Your task to perform on an android device: find which apps use the phone's location Image 0: 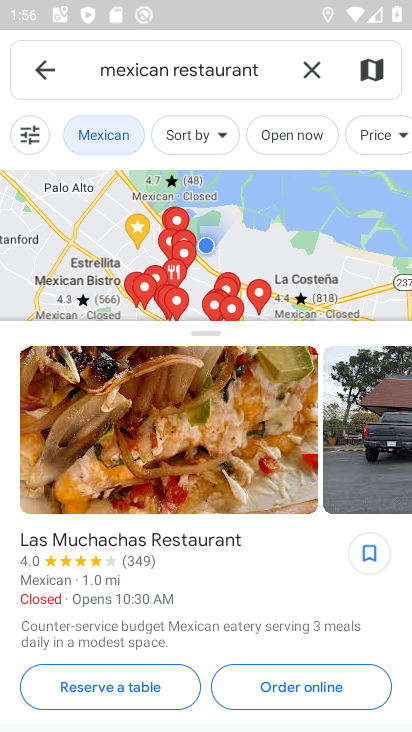
Step 0: press home button
Your task to perform on an android device: find which apps use the phone's location Image 1: 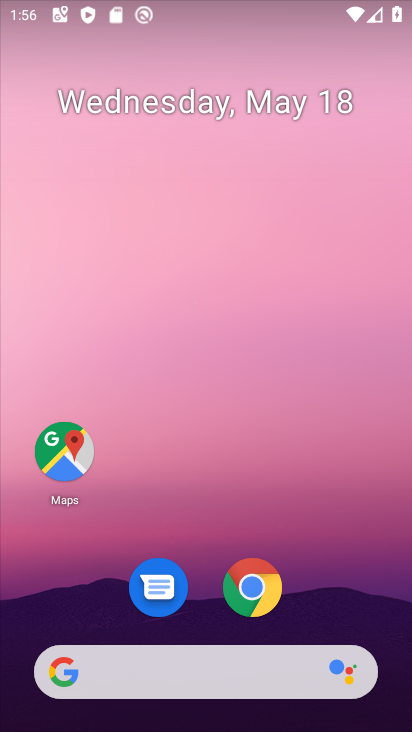
Step 1: drag from (349, 631) to (326, 0)
Your task to perform on an android device: find which apps use the phone's location Image 2: 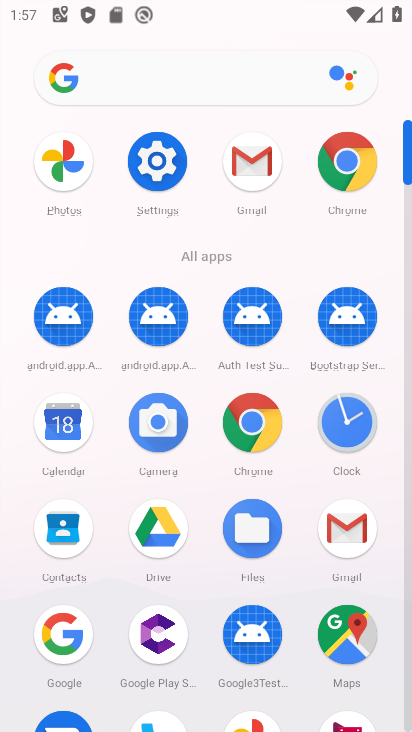
Step 2: click (158, 155)
Your task to perform on an android device: find which apps use the phone's location Image 3: 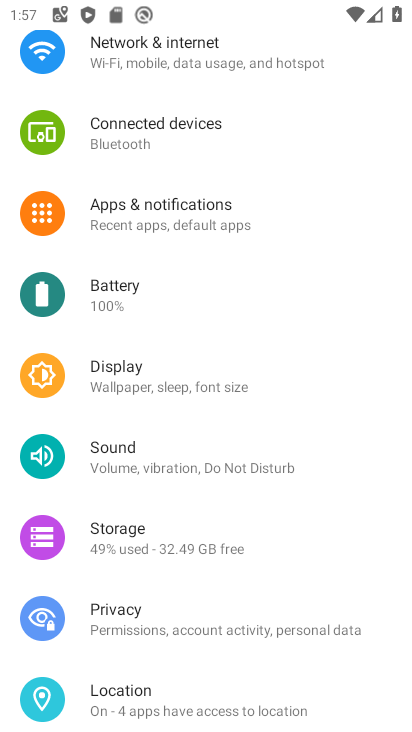
Step 3: click (144, 694)
Your task to perform on an android device: find which apps use the phone's location Image 4: 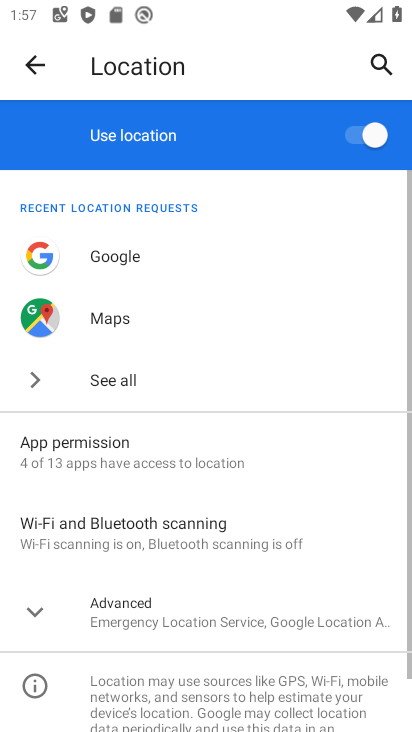
Step 4: click (69, 445)
Your task to perform on an android device: find which apps use the phone's location Image 5: 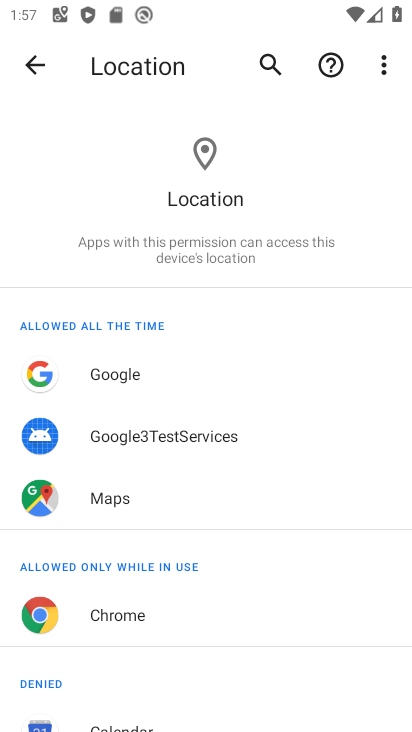
Step 5: task complete